Your task to perform on an android device: Open sound settings Image 0: 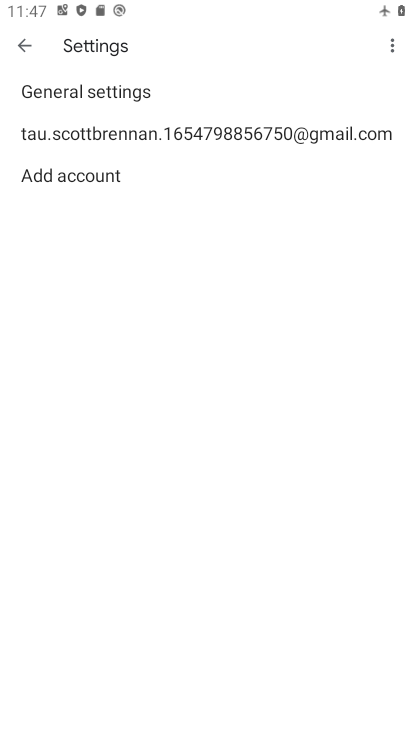
Step 0: press home button
Your task to perform on an android device: Open sound settings Image 1: 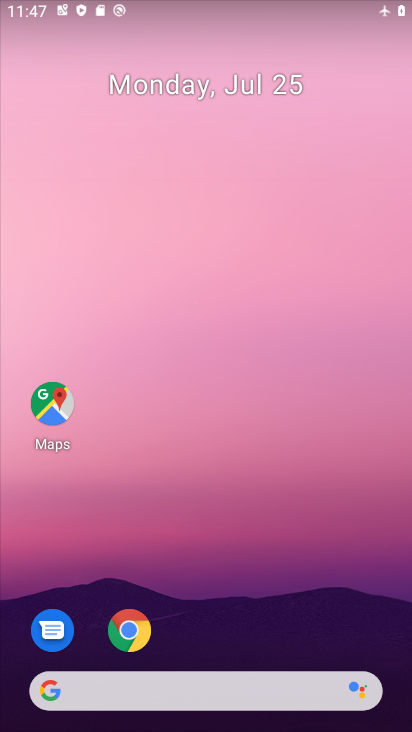
Step 1: drag from (372, 621) to (353, 106)
Your task to perform on an android device: Open sound settings Image 2: 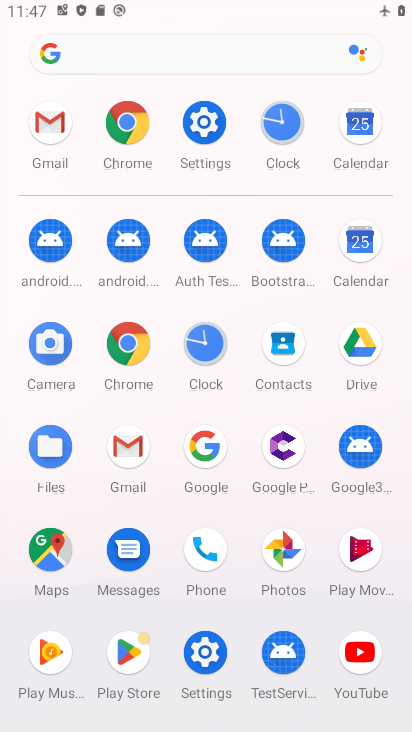
Step 2: click (211, 126)
Your task to perform on an android device: Open sound settings Image 3: 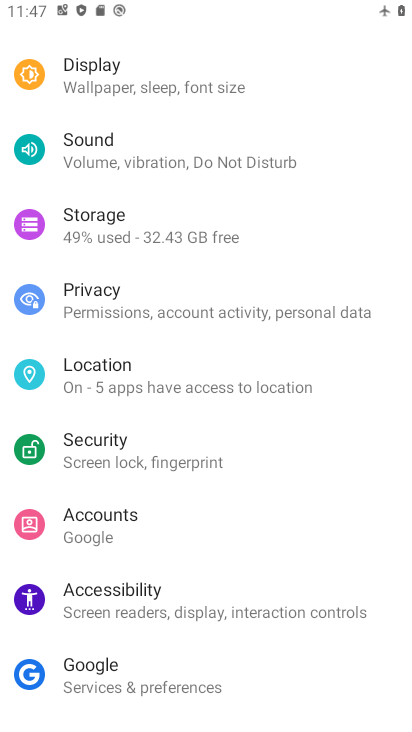
Step 3: drag from (344, 512) to (346, 450)
Your task to perform on an android device: Open sound settings Image 4: 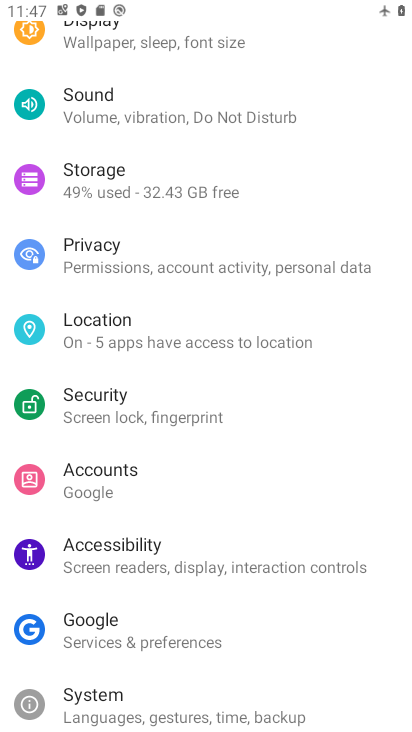
Step 4: drag from (335, 498) to (341, 390)
Your task to perform on an android device: Open sound settings Image 5: 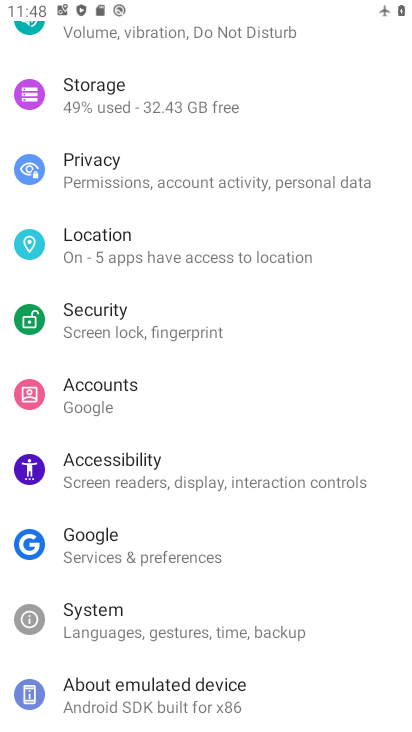
Step 5: drag from (343, 353) to (330, 422)
Your task to perform on an android device: Open sound settings Image 6: 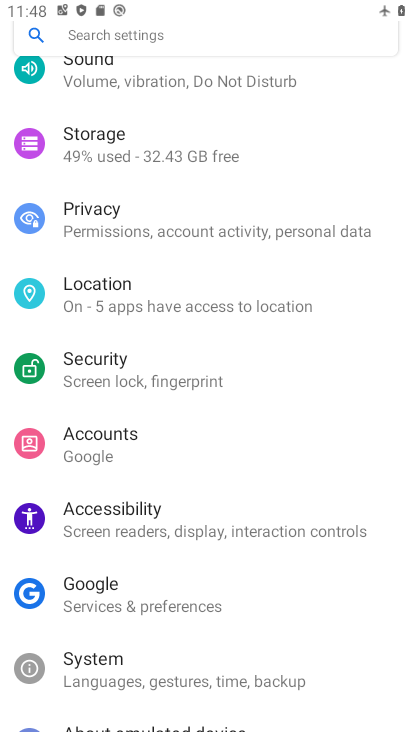
Step 6: drag from (341, 309) to (343, 388)
Your task to perform on an android device: Open sound settings Image 7: 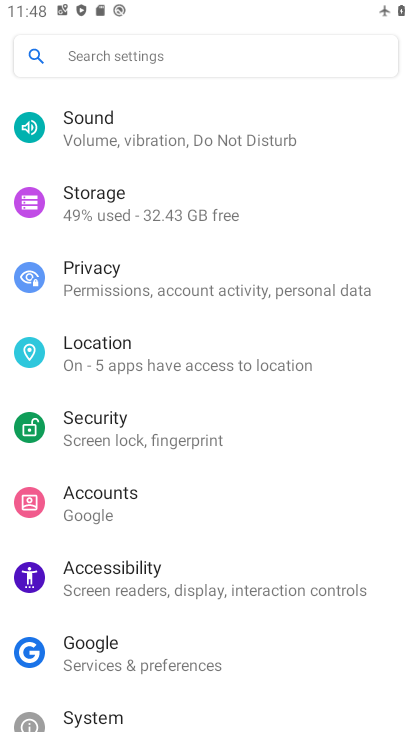
Step 7: drag from (353, 313) to (347, 405)
Your task to perform on an android device: Open sound settings Image 8: 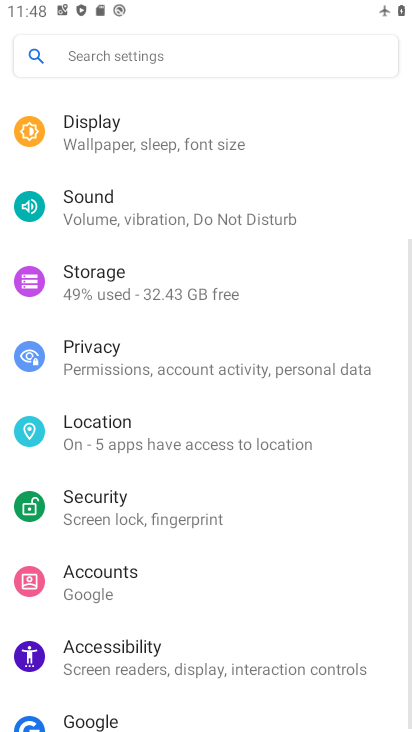
Step 8: drag from (350, 296) to (350, 395)
Your task to perform on an android device: Open sound settings Image 9: 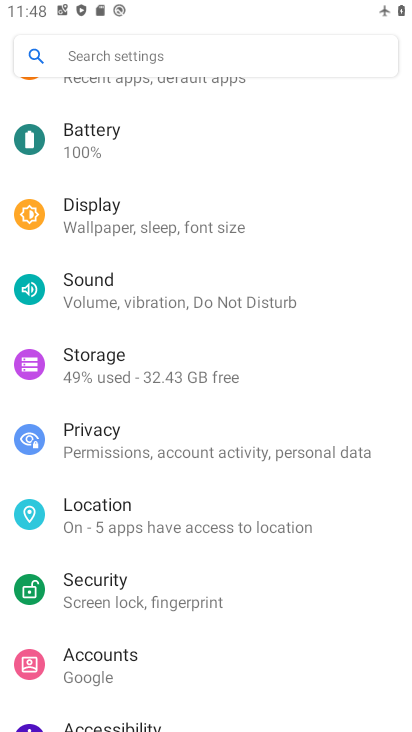
Step 9: drag from (356, 263) to (344, 399)
Your task to perform on an android device: Open sound settings Image 10: 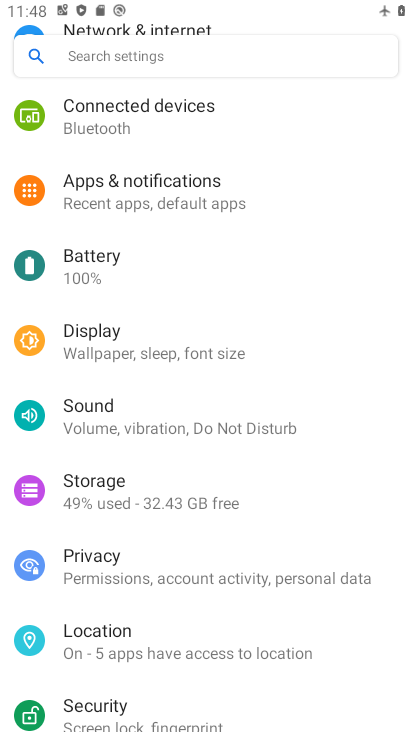
Step 10: click (313, 430)
Your task to perform on an android device: Open sound settings Image 11: 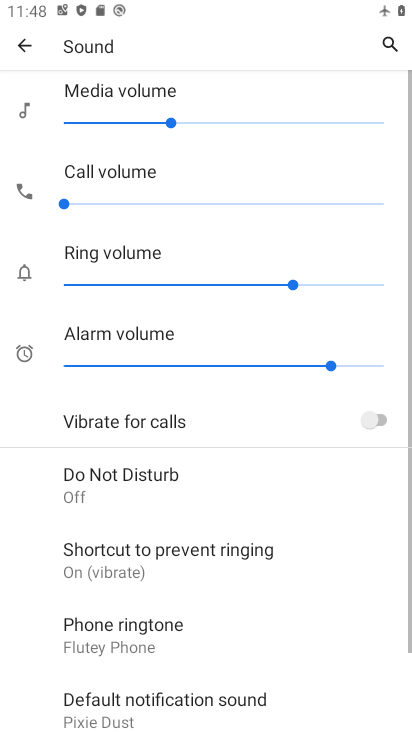
Step 11: task complete